Your task to perform on an android device: Open Amazon Image 0: 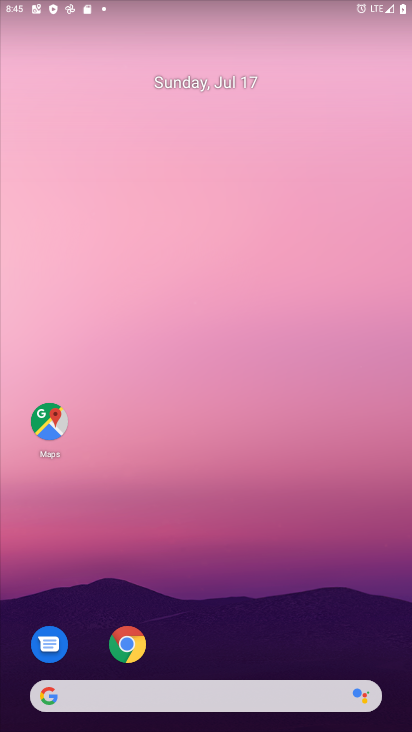
Step 0: drag from (217, 694) to (216, 160)
Your task to perform on an android device: Open Amazon Image 1: 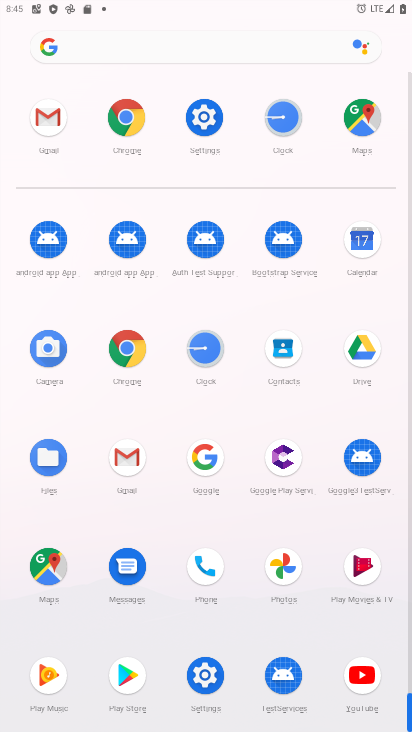
Step 1: click (119, 115)
Your task to perform on an android device: Open Amazon Image 2: 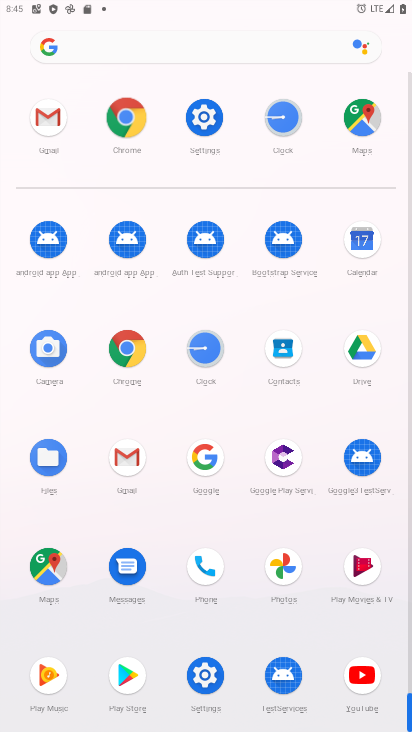
Step 2: click (119, 115)
Your task to perform on an android device: Open Amazon Image 3: 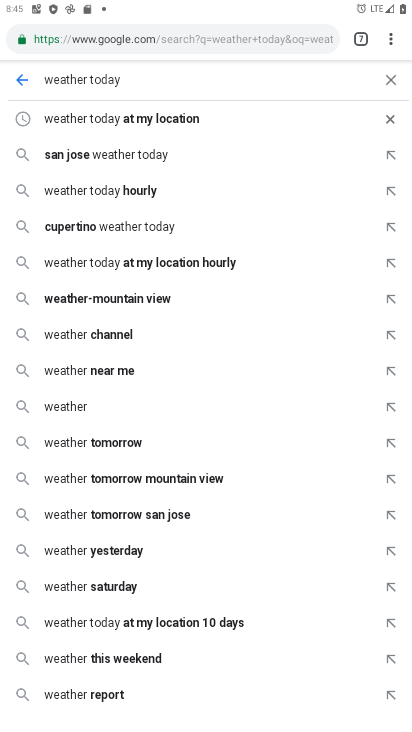
Step 3: drag from (393, 35) to (236, 74)
Your task to perform on an android device: Open Amazon Image 4: 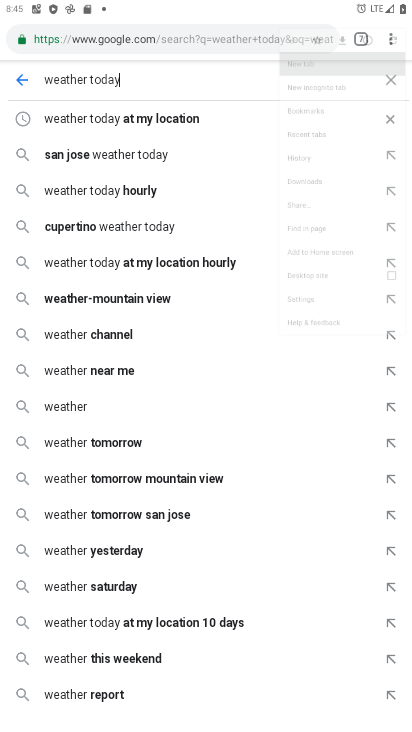
Step 4: click (236, 74)
Your task to perform on an android device: Open Amazon Image 5: 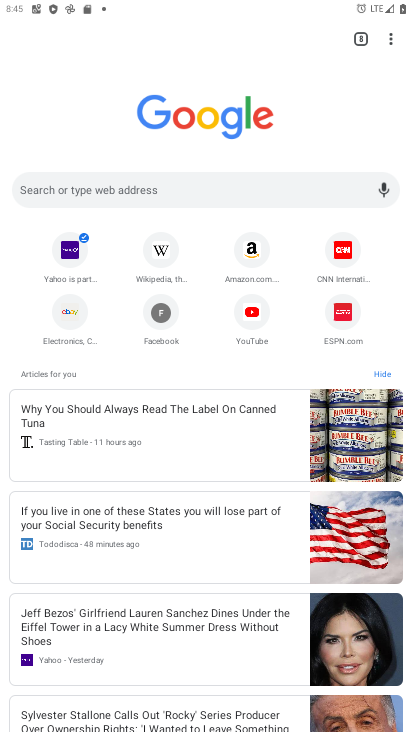
Step 5: click (253, 256)
Your task to perform on an android device: Open Amazon Image 6: 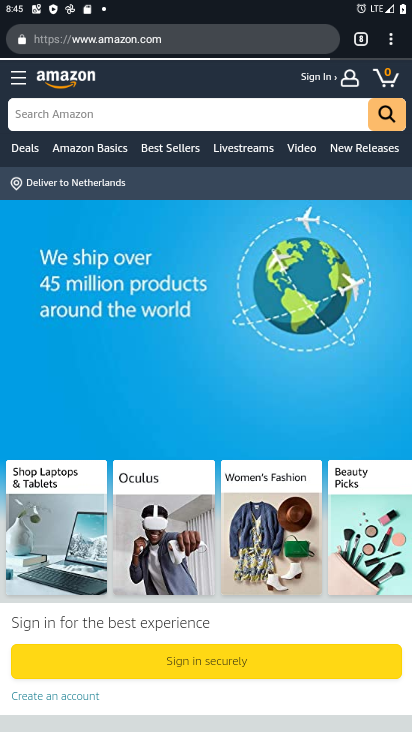
Step 6: task complete